Your task to perform on an android device: Find coffee shops on Maps Image 0: 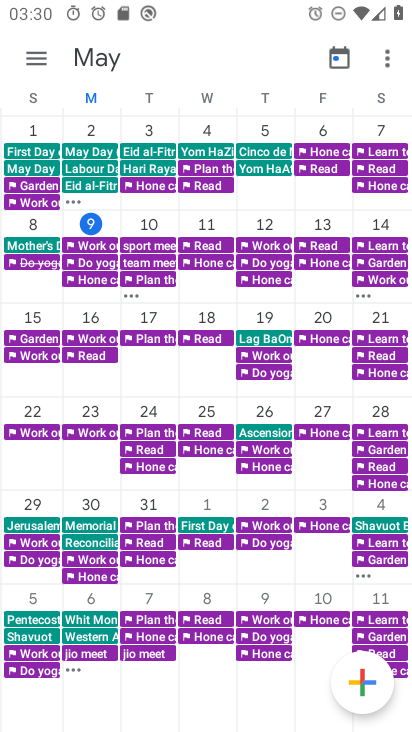
Step 0: press home button
Your task to perform on an android device: Find coffee shops on Maps Image 1: 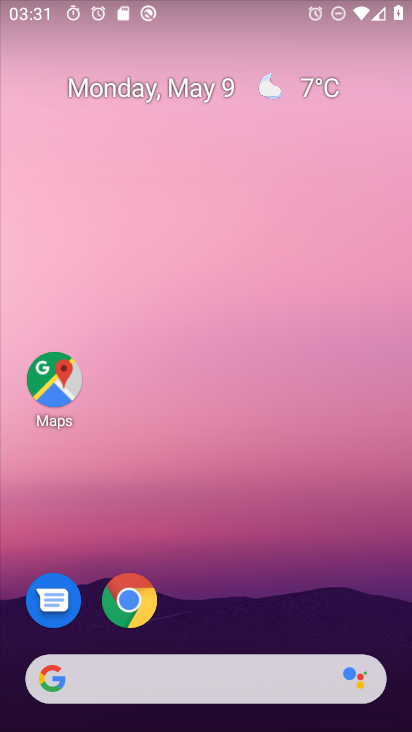
Step 1: drag from (204, 666) to (204, 171)
Your task to perform on an android device: Find coffee shops on Maps Image 2: 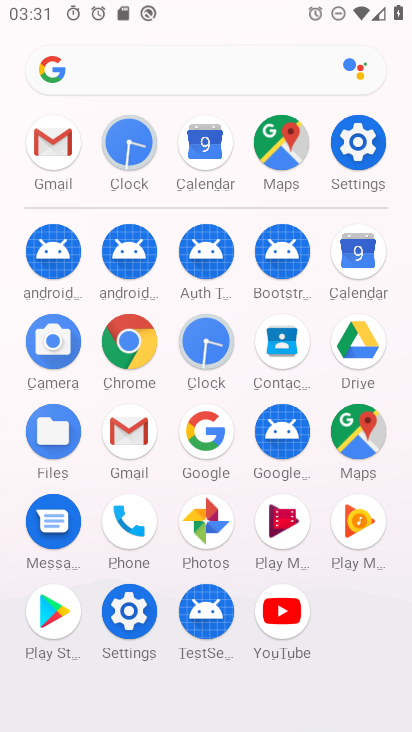
Step 2: click (292, 147)
Your task to perform on an android device: Find coffee shops on Maps Image 3: 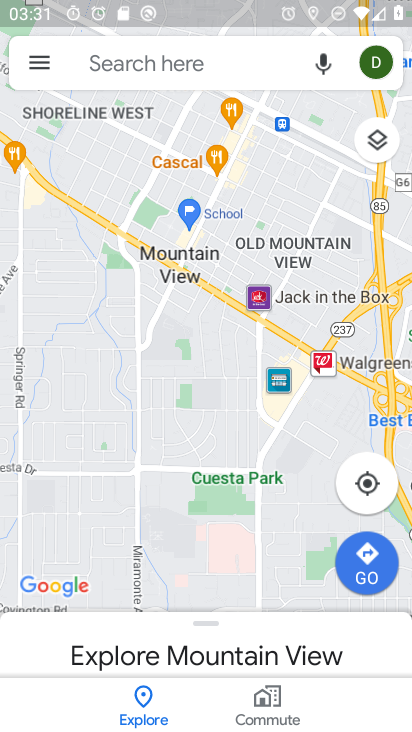
Step 3: click (37, 67)
Your task to perform on an android device: Find coffee shops on Maps Image 4: 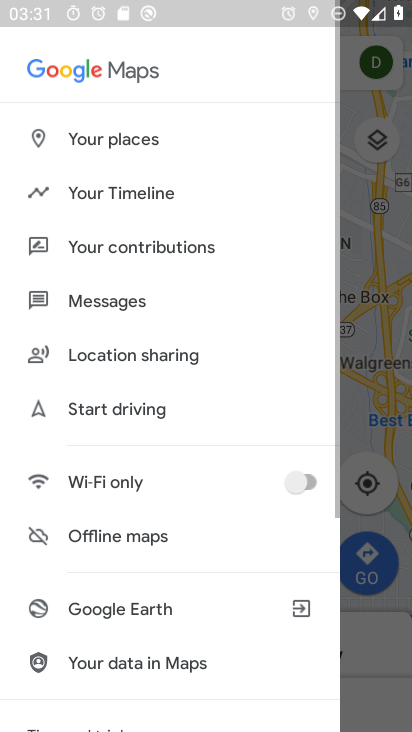
Step 4: click (391, 174)
Your task to perform on an android device: Find coffee shops on Maps Image 5: 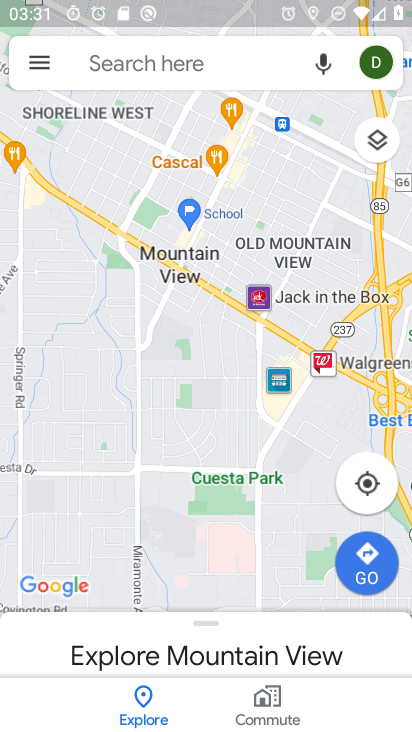
Step 5: click (220, 56)
Your task to perform on an android device: Find coffee shops on Maps Image 6: 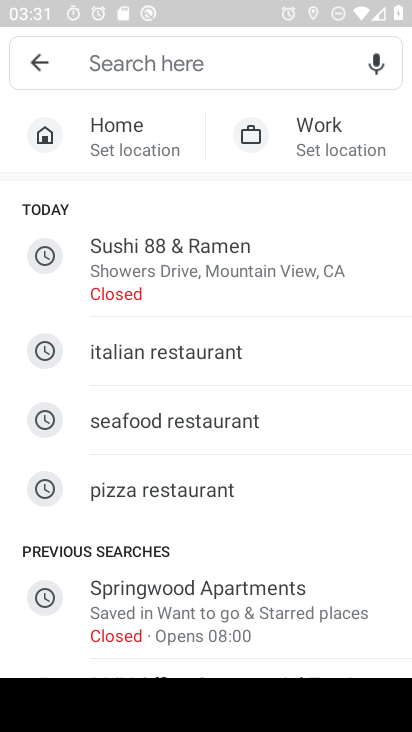
Step 6: drag from (235, 479) to (197, 111)
Your task to perform on an android device: Find coffee shops on Maps Image 7: 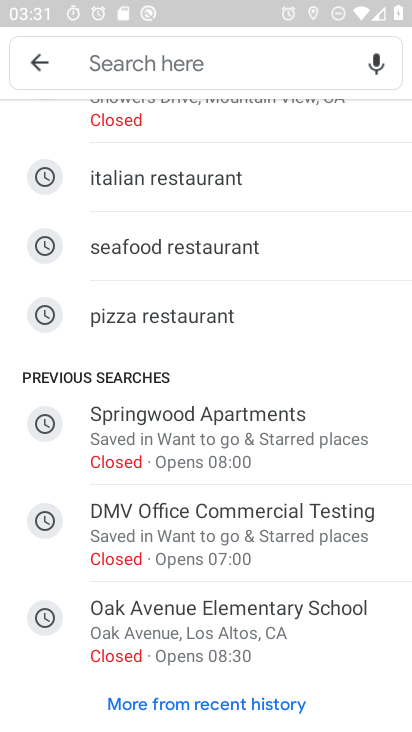
Step 7: drag from (205, 272) to (245, 662)
Your task to perform on an android device: Find coffee shops on Maps Image 8: 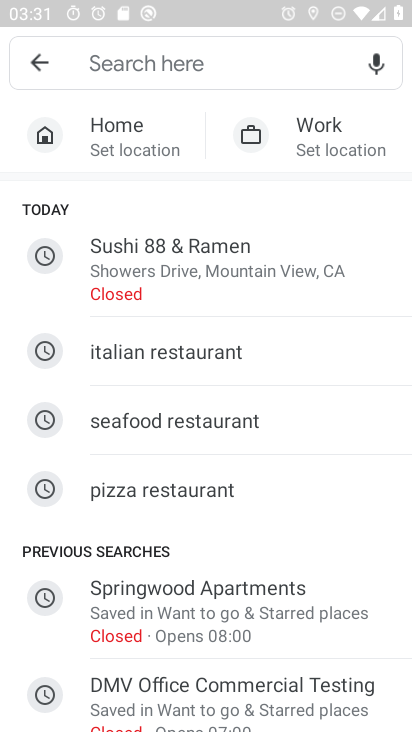
Step 8: click (220, 59)
Your task to perform on an android device: Find coffee shops on Maps Image 9: 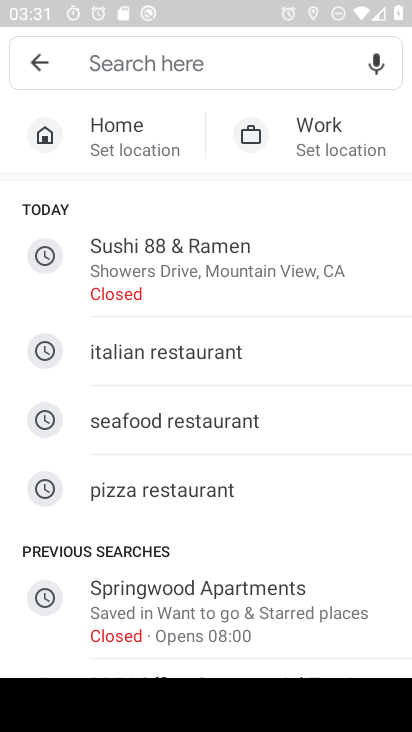
Step 9: type "coffee shops"
Your task to perform on an android device: Find coffee shops on Maps Image 10: 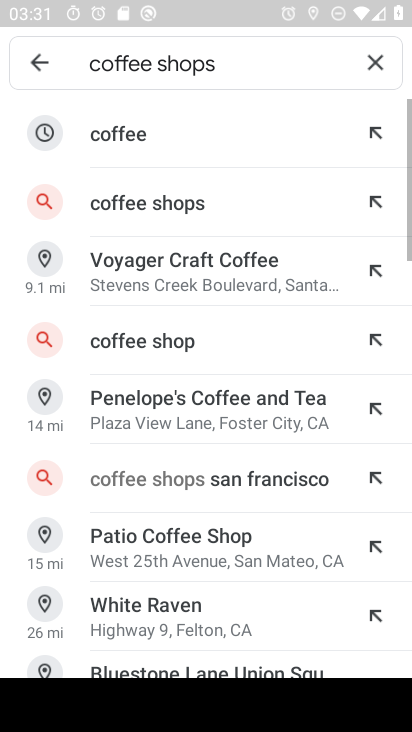
Step 10: click (196, 213)
Your task to perform on an android device: Find coffee shops on Maps Image 11: 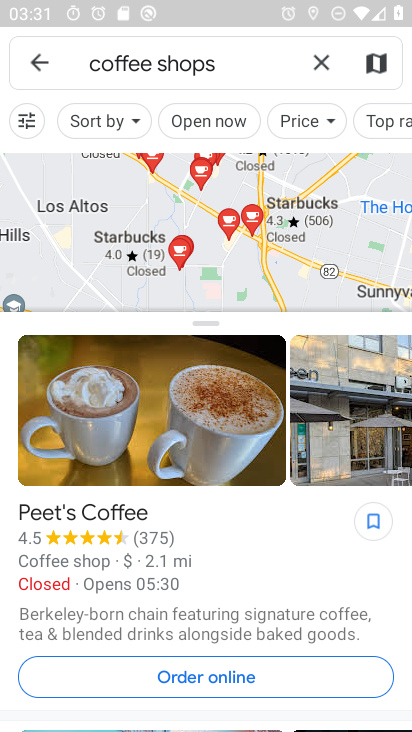
Step 11: task complete